Your task to perform on an android device: clear all cookies in the chrome app Image 0: 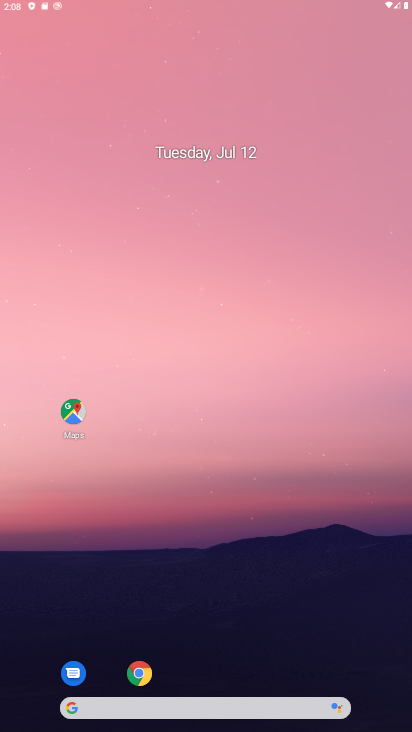
Step 0: drag from (243, 561) to (151, 92)
Your task to perform on an android device: clear all cookies in the chrome app Image 1: 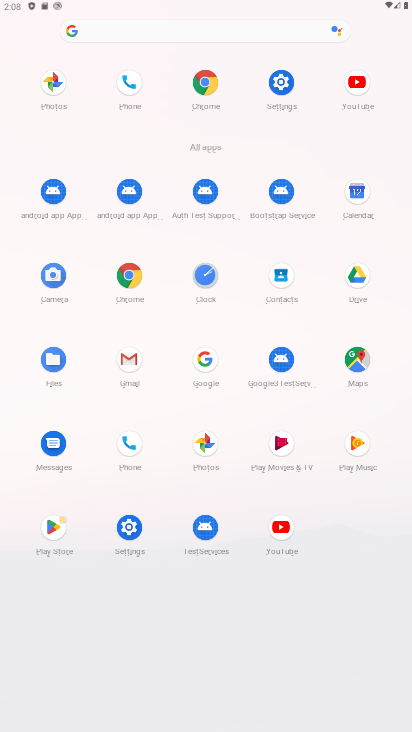
Step 1: click (211, 78)
Your task to perform on an android device: clear all cookies in the chrome app Image 2: 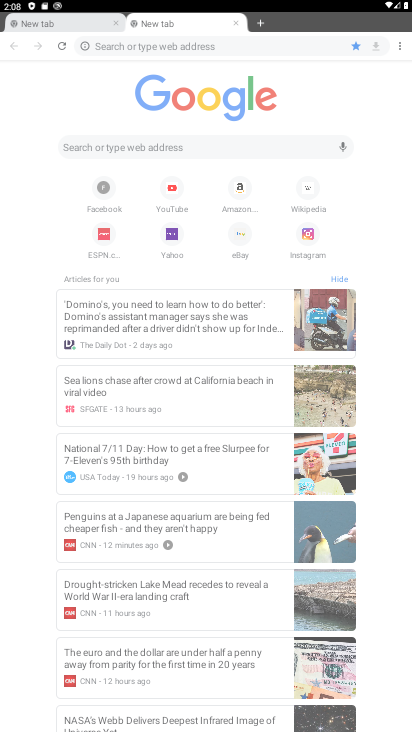
Step 2: click (208, 83)
Your task to perform on an android device: clear all cookies in the chrome app Image 3: 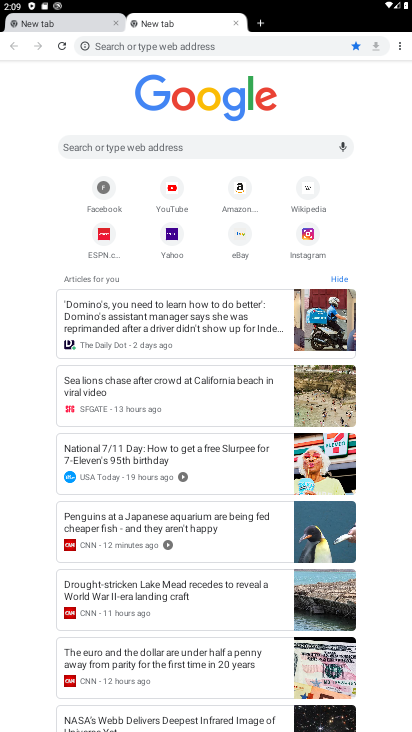
Step 3: click (396, 39)
Your task to perform on an android device: clear all cookies in the chrome app Image 4: 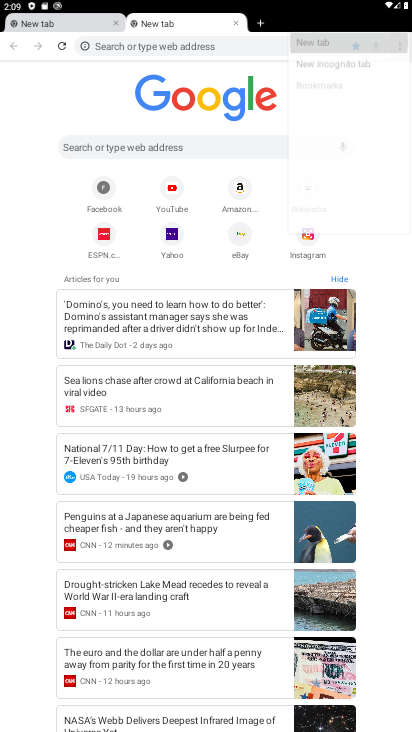
Step 4: click (397, 41)
Your task to perform on an android device: clear all cookies in the chrome app Image 5: 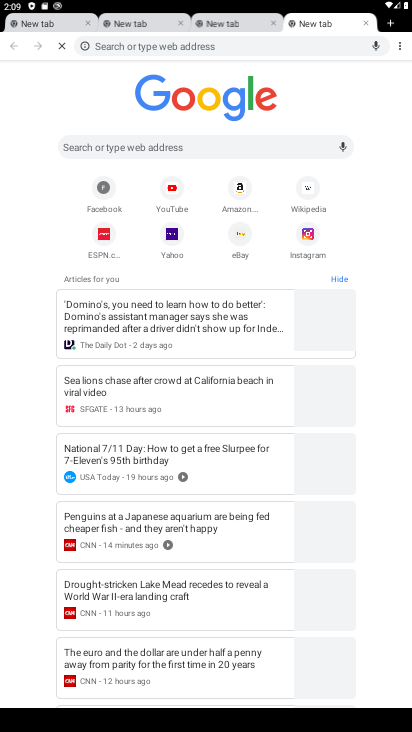
Step 5: drag from (395, 43) to (308, 213)
Your task to perform on an android device: clear all cookies in the chrome app Image 6: 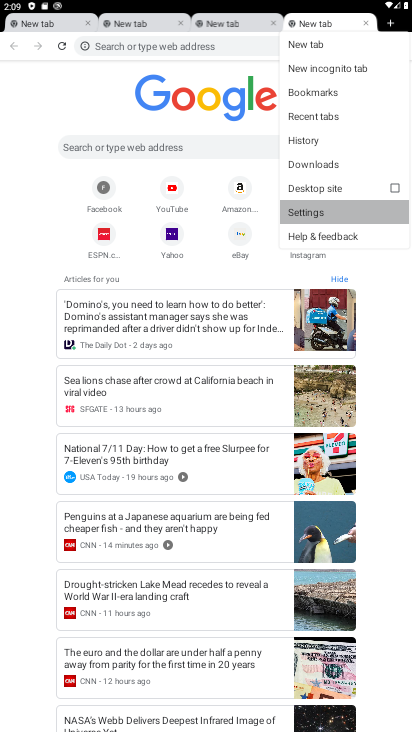
Step 6: click (308, 213)
Your task to perform on an android device: clear all cookies in the chrome app Image 7: 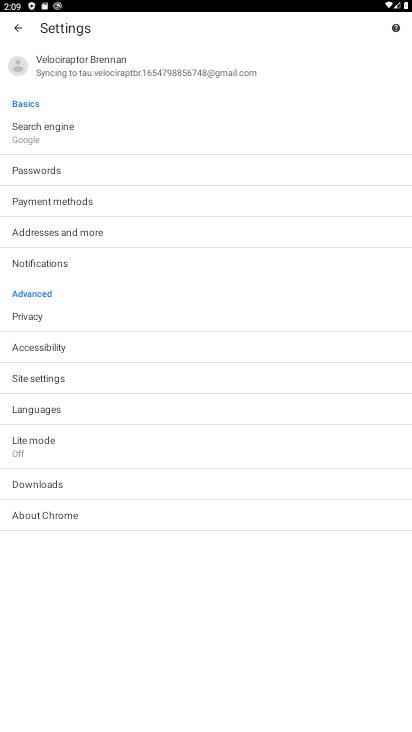
Step 7: click (36, 376)
Your task to perform on an android device: clear all cookies in the chrome app Image 8: 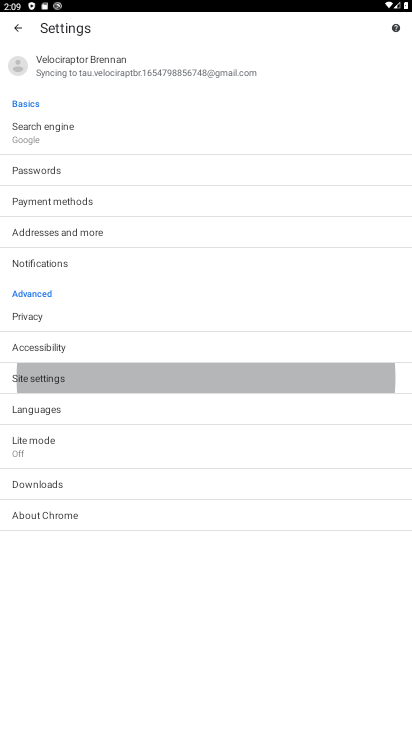
Step 8: click (40, 377)
Your task to perform on an android device: clear all cookies in the chrome app Image 9: 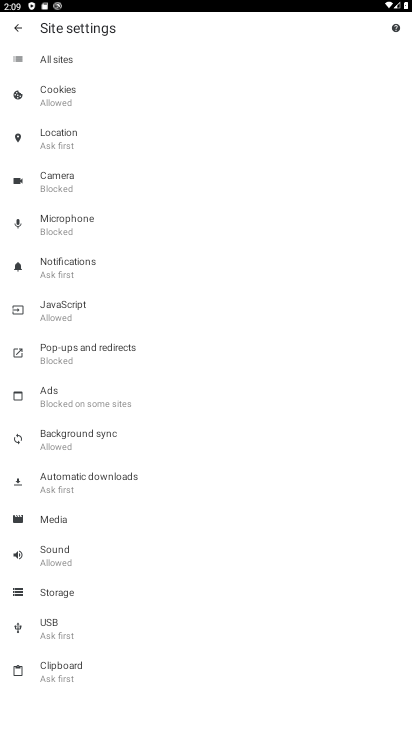
Step 9: task complete